Your task to perform on an android device: turn on location history Image 0: 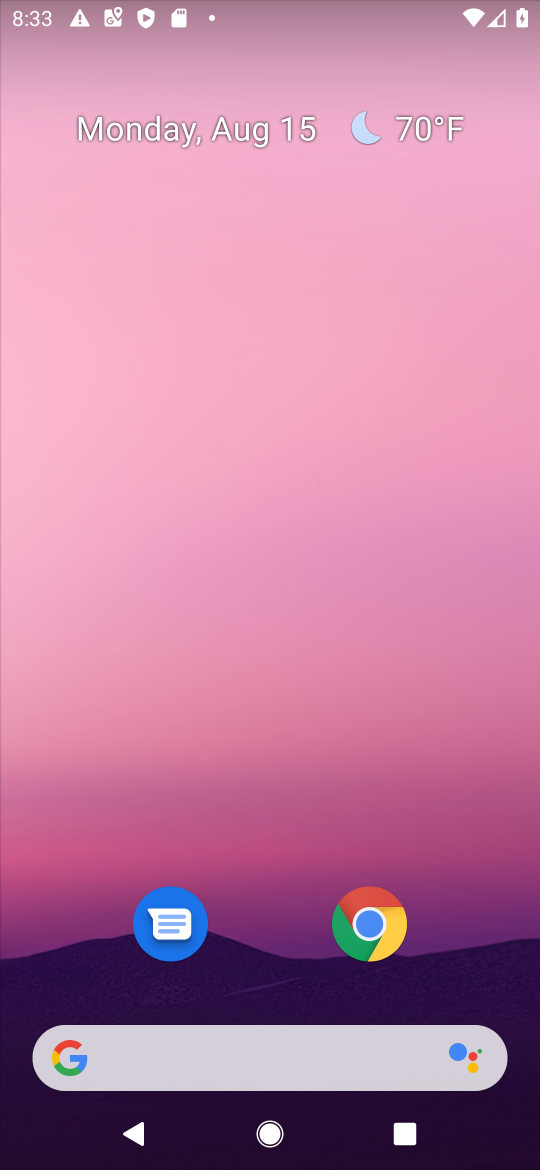
Step 0: drag from (501, 988) to (425, 255)
Your task to perform on an android device: turn on location history Image 1: 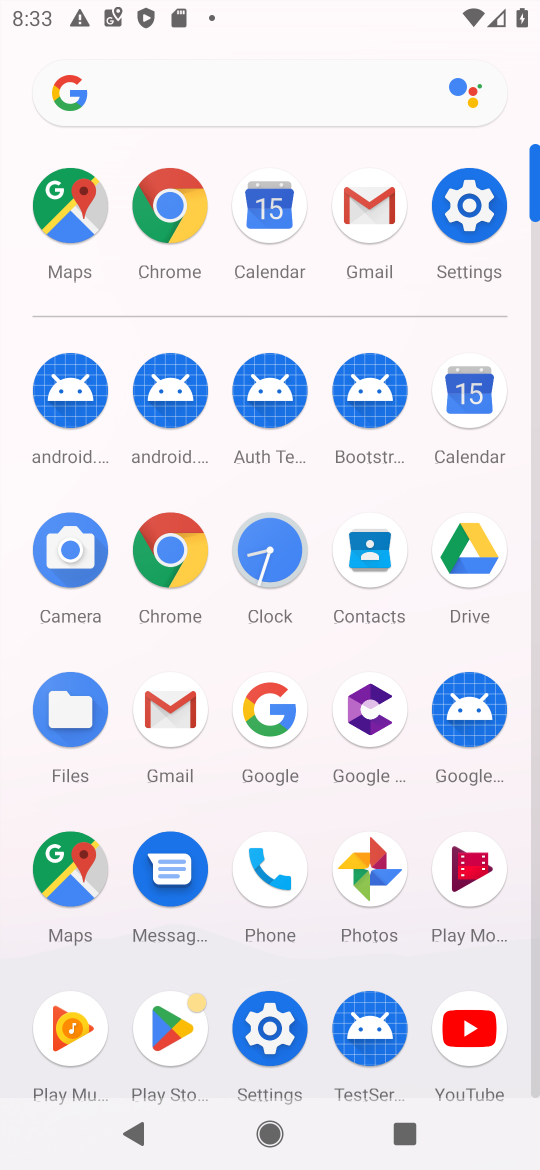
Step 1: drag from (407, 983) to (396, 678)
Your task to perform on an android device: turn on location history Image 2: 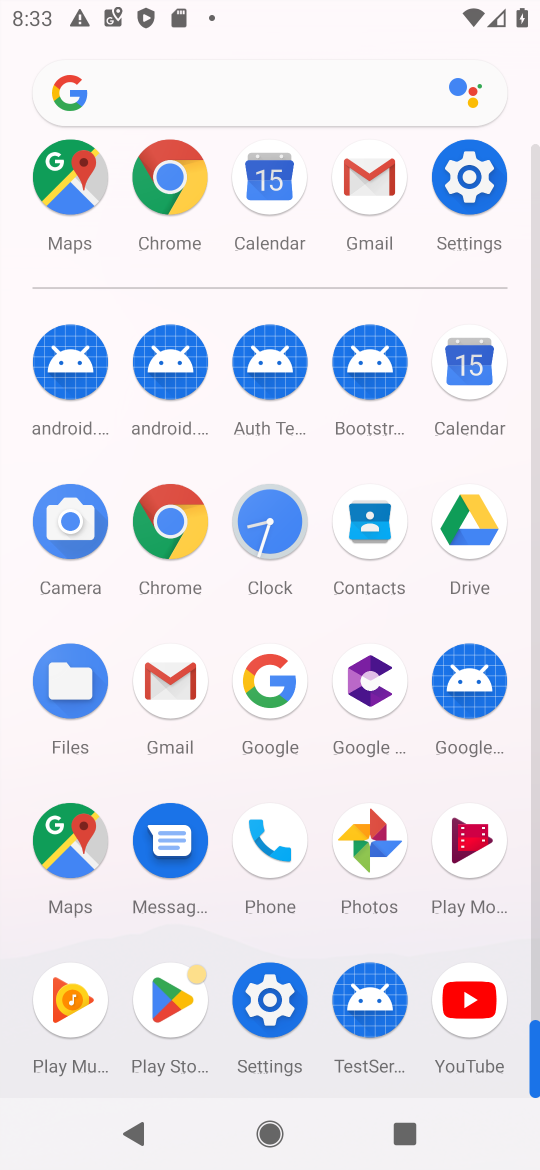
Step 2: click (68, 843)
Your task to perform on an android device: turn on location history Image 3: 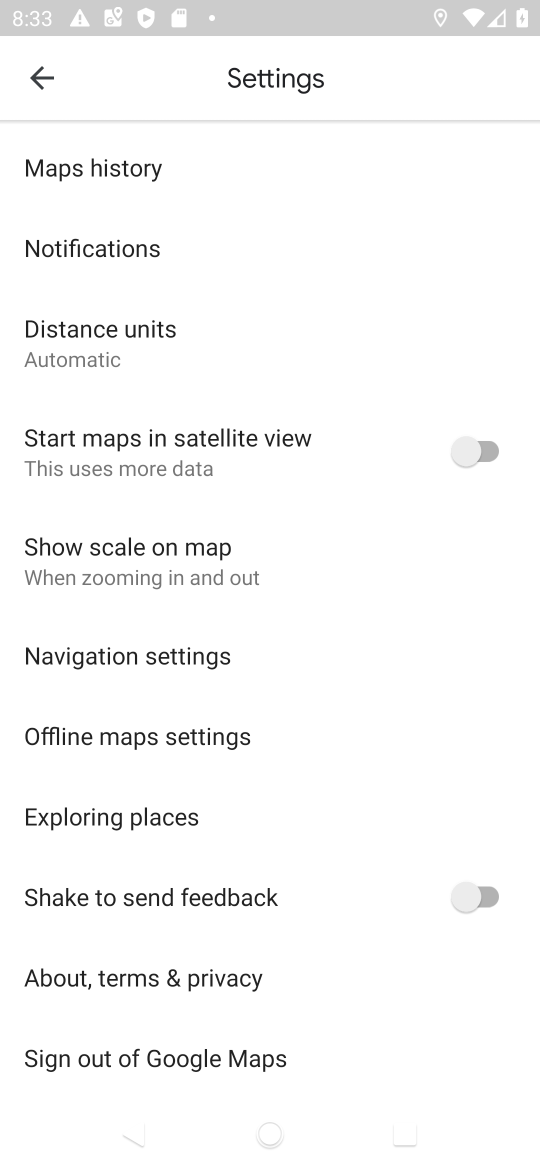
Step 3: drag from (295, 289) to (352, 714)
Your task to perform on an android device: turn on location history Image 4: 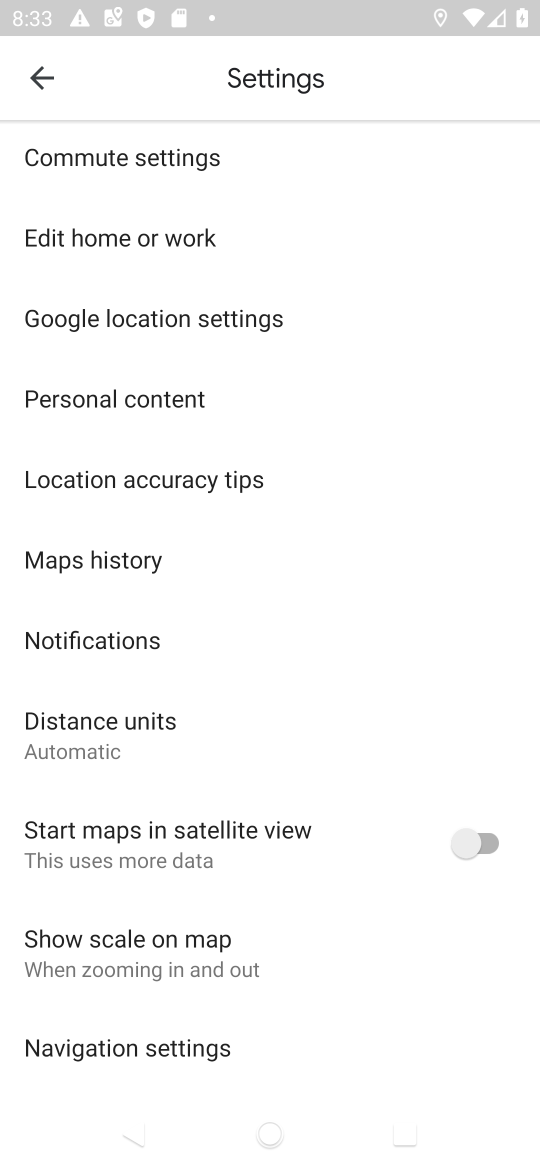
Step 4: drag from (371, 302) to (376, 741)
Your task to perform on an android device: turn on location history Image 5: 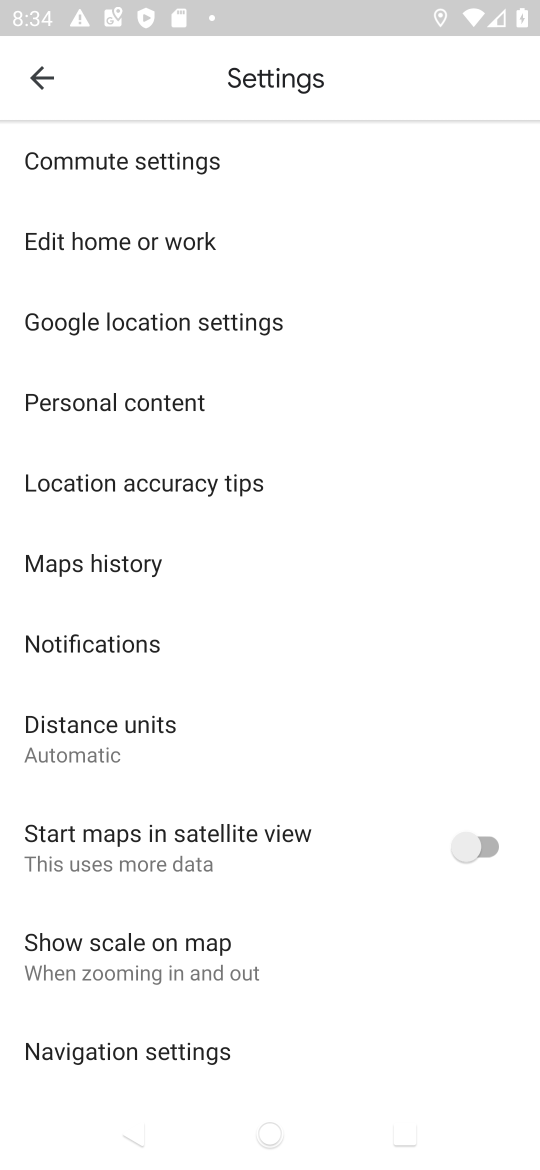
Step 5: click (107, 403)
Your task to perform on an android device: turn on location history Image 6: 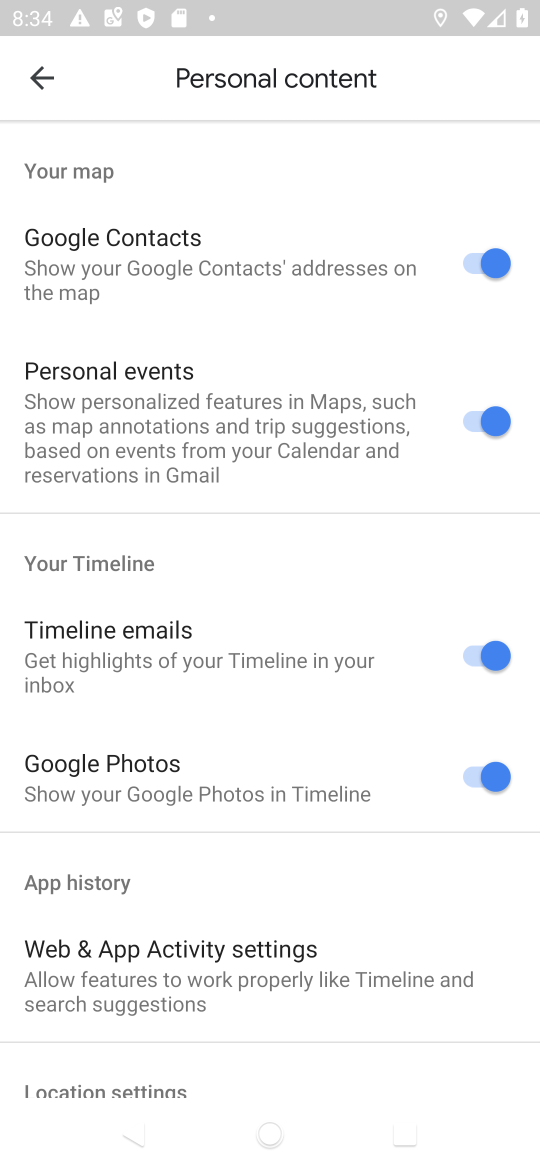
Step 6: task complete